Your task to perform on an android device: change text size in settings app Image 0: 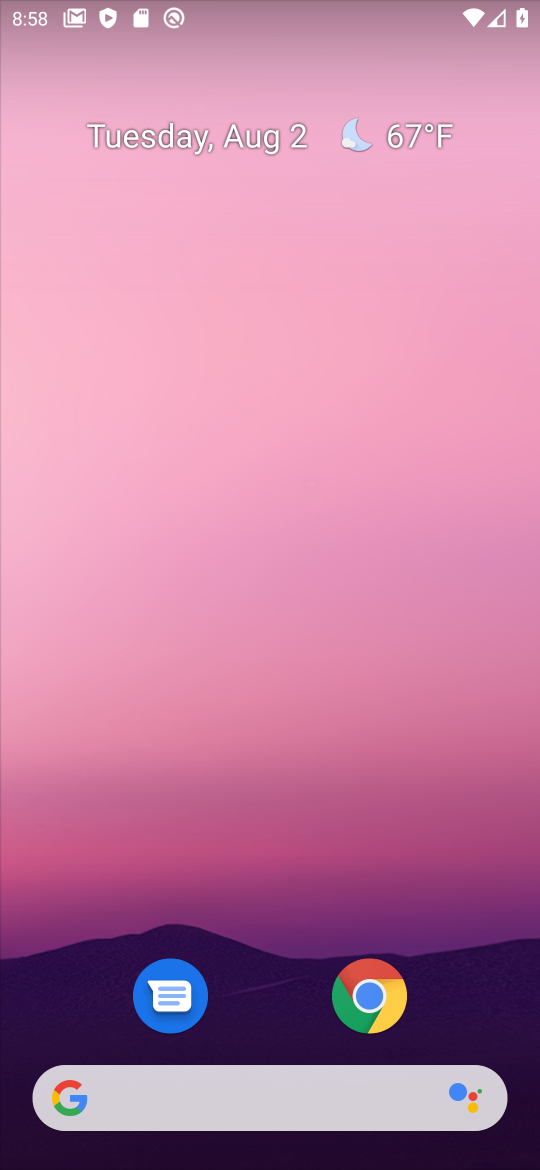
Step 0: drag from (291, 936) to (217, 52)
Your task to perform on an android device: change text size in settings app Image 1: 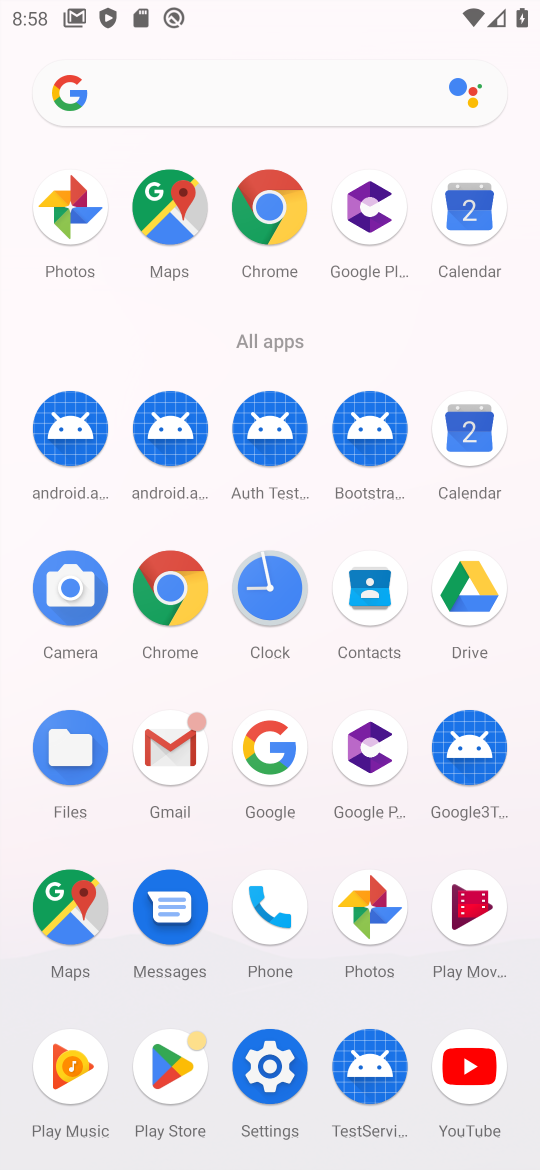
Step 1: click (277, 1058)
Your task to perform on an android device: change text size in settings app Image 2: 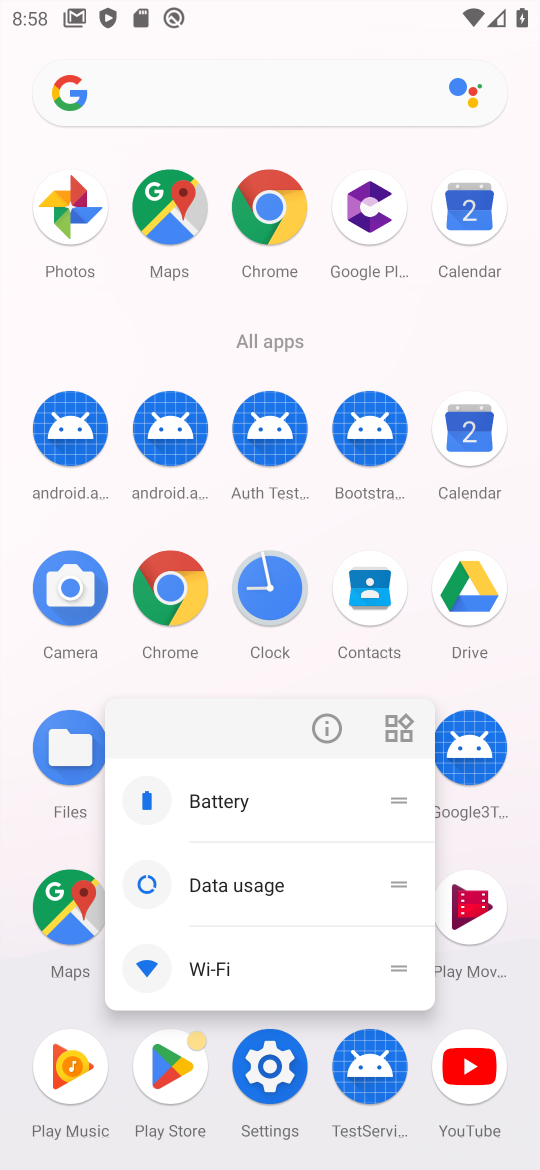
Step 2: click (259, 1068)
Your task to perform on an android device: change text size in settings app Image 3: 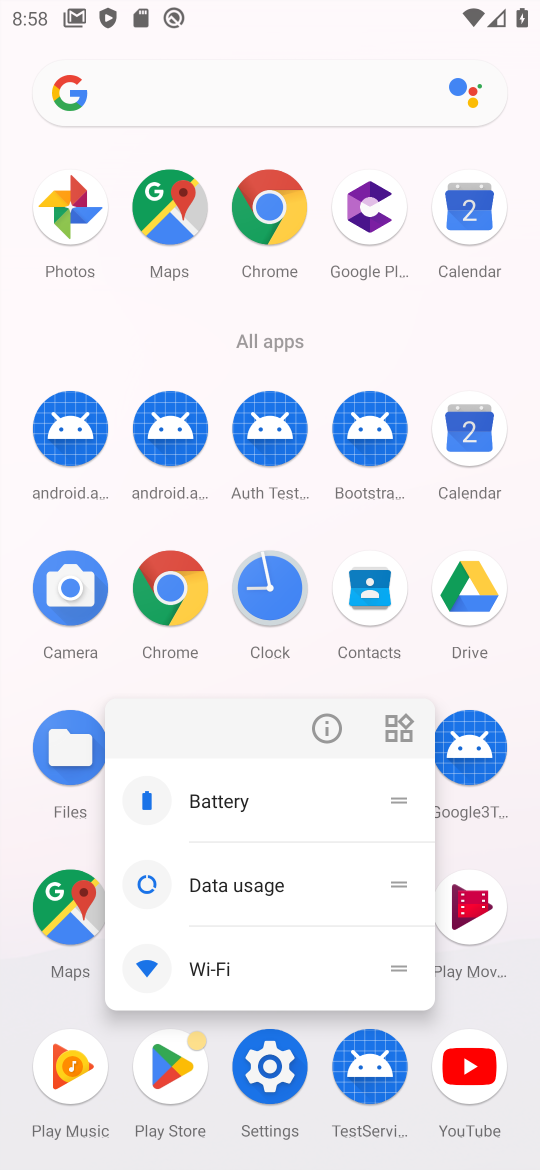
Step 3: click (259, 1068)
Your task to perform on an android device: change text size in settings app Image 4: 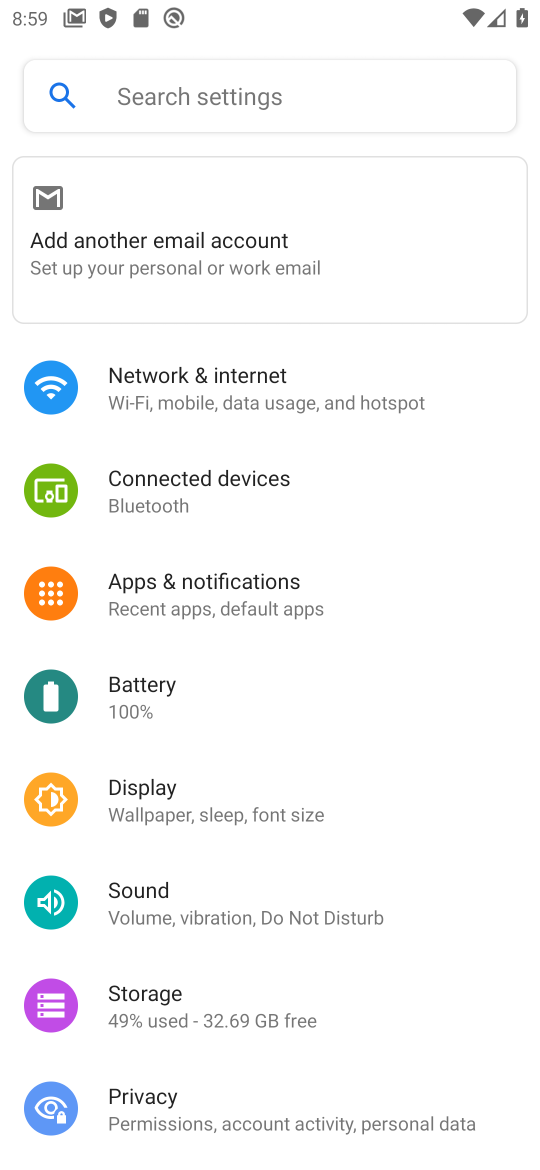
Step 4: drag from (224, 1012) to (296, 306)
Your task to perform on an android device: change text size in settings app Image 5: 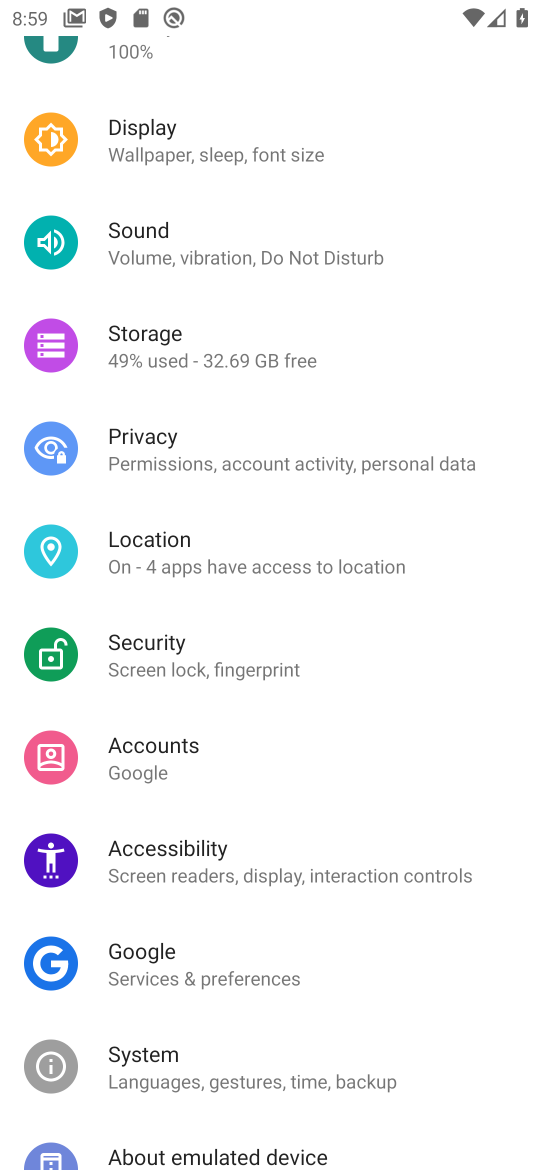
Step 5: drag from (176, 1032) to (214, 243)
Your task to perform on an android device: change text size in settings app Image 6: 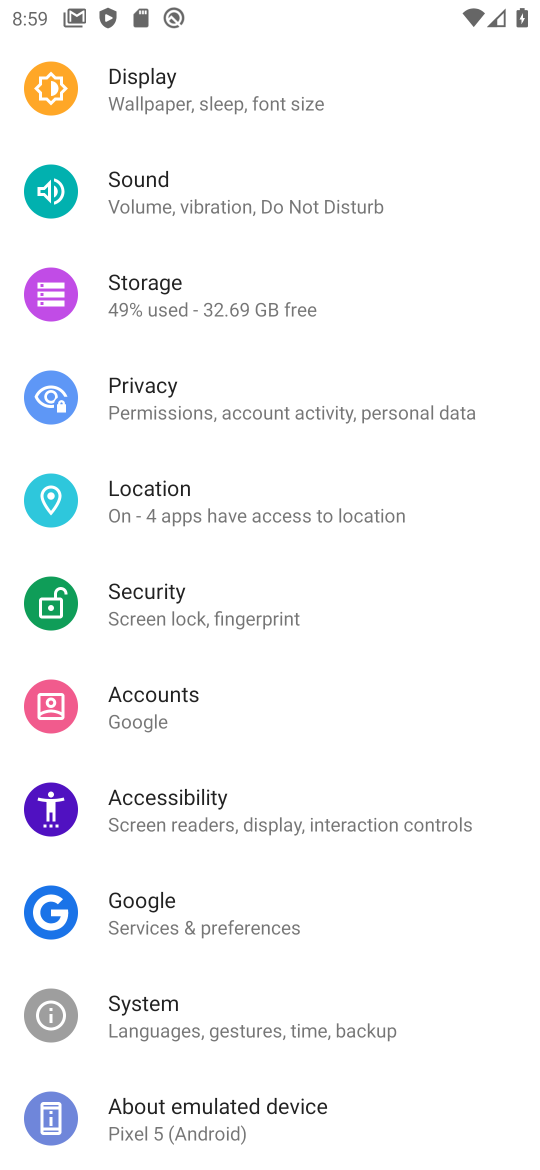
Step 6: click (159, 98)
Your task to perform on an android device: change text size in settings app Image 7: 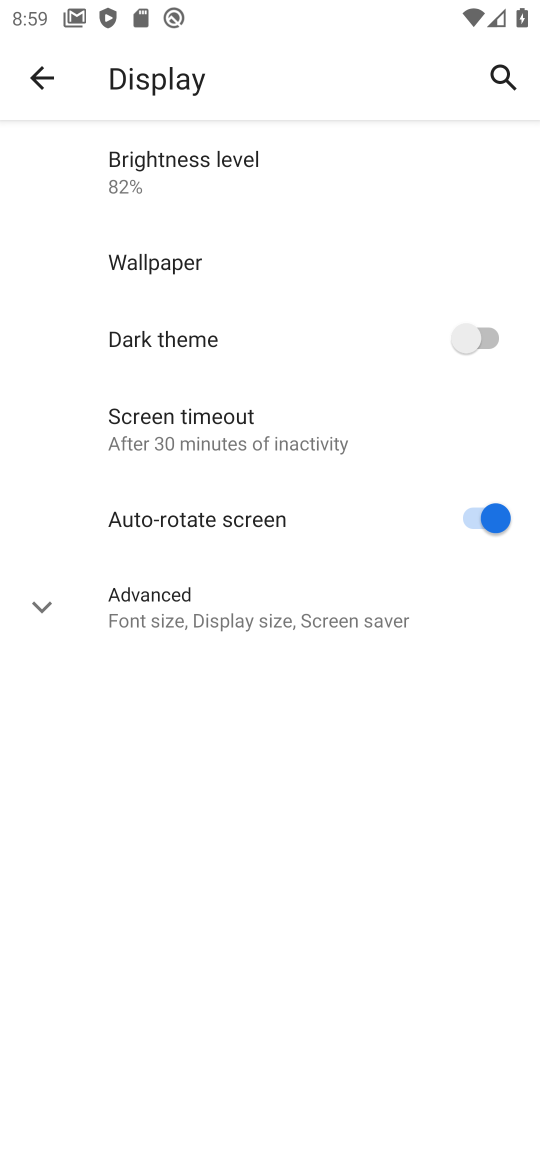
Step 7: click (115, 607)
Your task to perform on an android device: change text size in settings app Image 8: 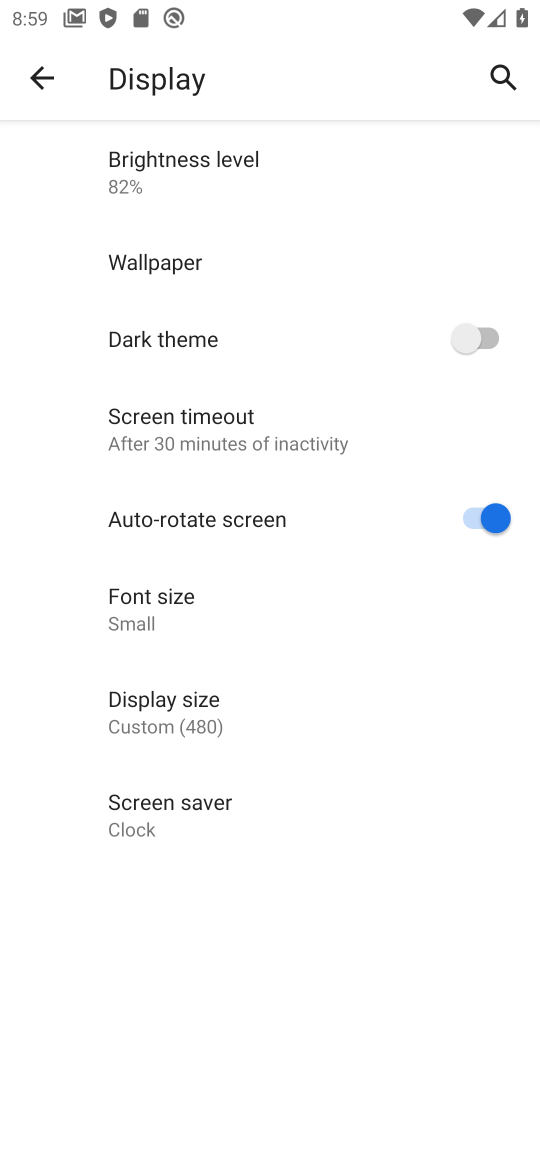
Step 8: click (187, 600)
Your task to perform on an android device: change text size in settings app Image 9: 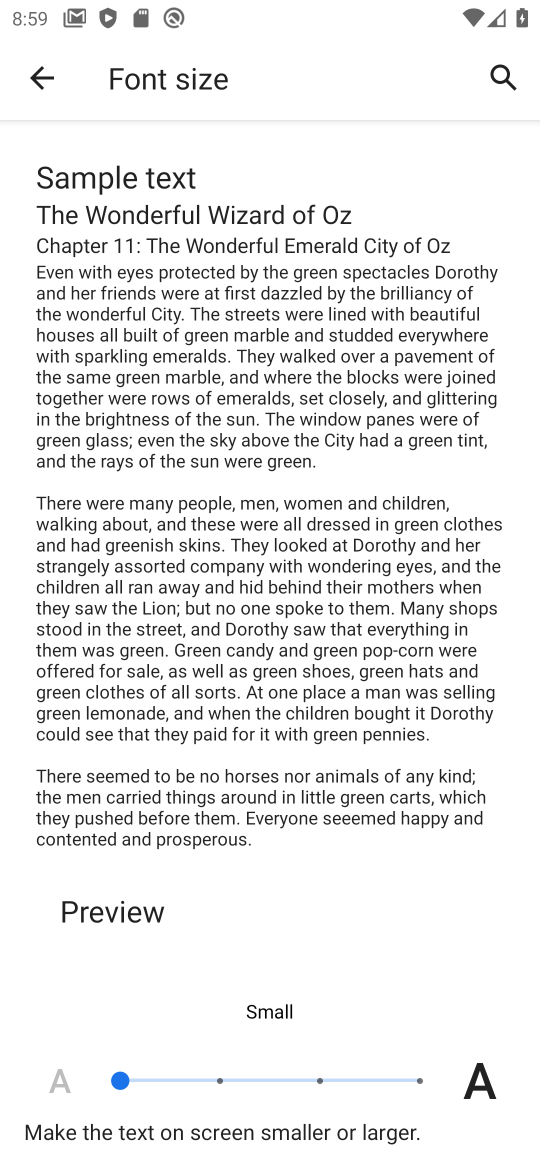
Step 9: click (210, 1066)
Your task to perform on an android device: change text size in settings app Image 10: 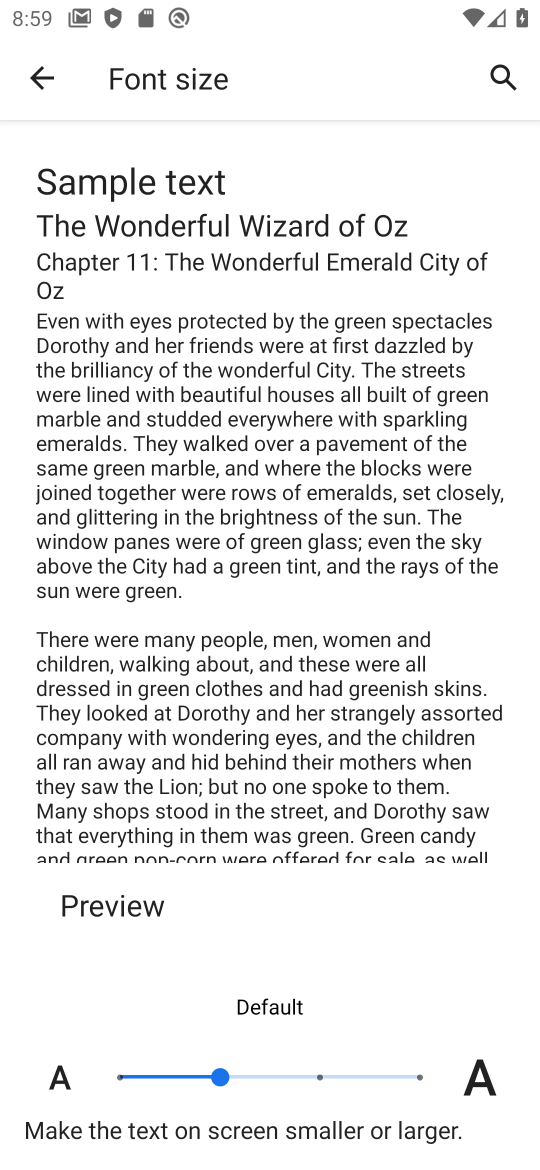
Step 10: task complete